Your task to perform on an android device: add a contact in the contacts app Image 0: 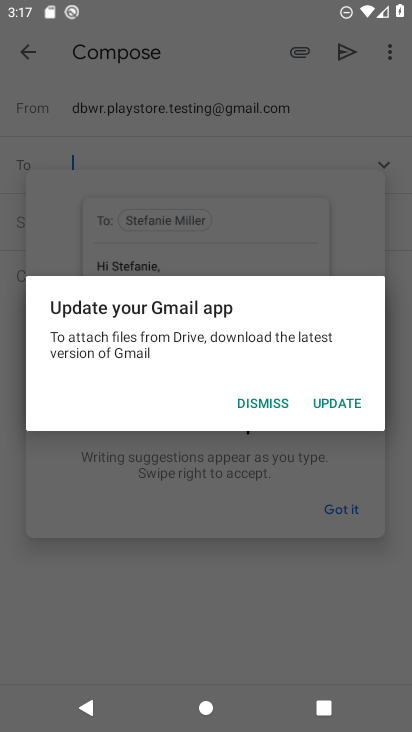
Step 0: press home button
Your task to perform on an android device: add a contact in the contacts app Image 1: 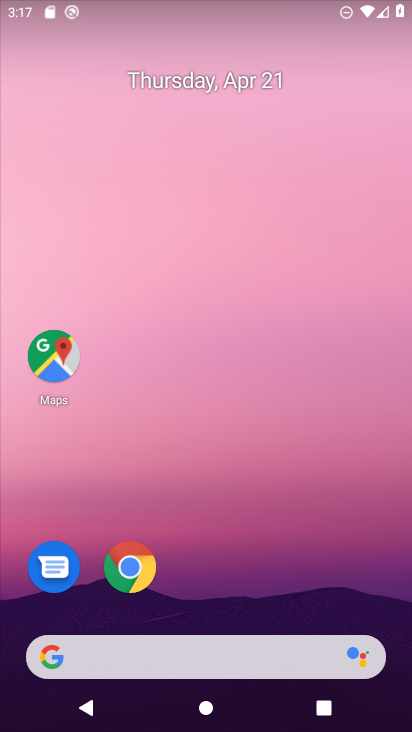
Step 1: drag from (178, 566) to (213, 109)
Your task to perform on an android device: add a contact in the contacts app Image 2: 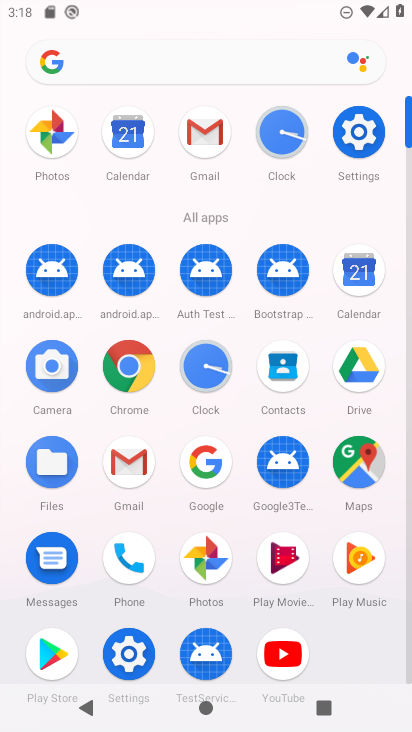
Step 2: click (213, 109)
Your task to perform on an android device: add a contact in the contacts app Image 3: 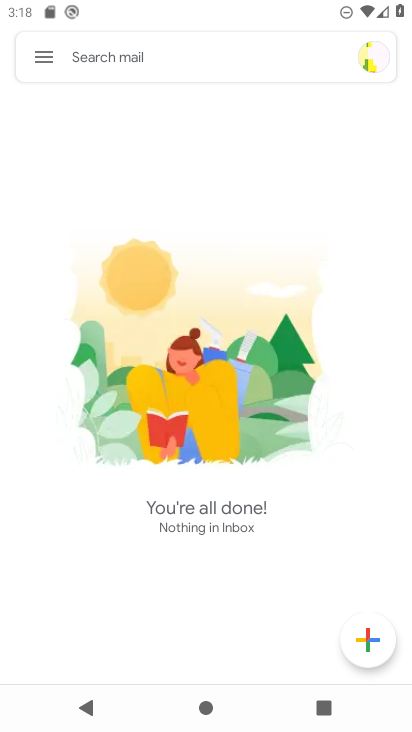
Step 3: press back button
Your task to perform on an android device: add a contact in the contacts app Image 4: 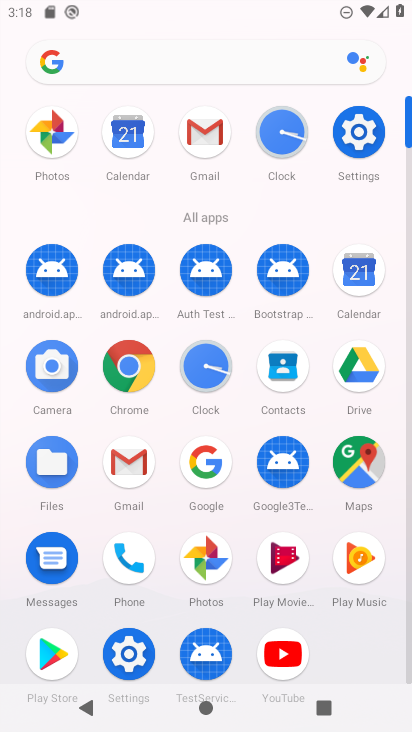
Step 4: click (290, 376)
Your task to perform on an android device: add a contact in the contacts app Image 5: 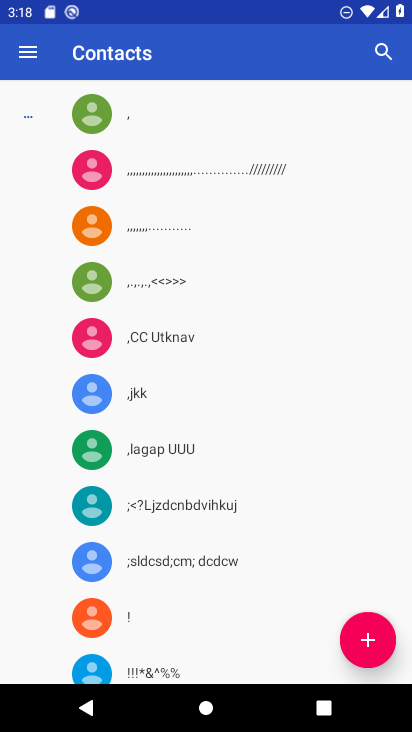
Step 5: click (368, 651)
Your task to perform on an android device: add a contact in the contacts app Image 6: 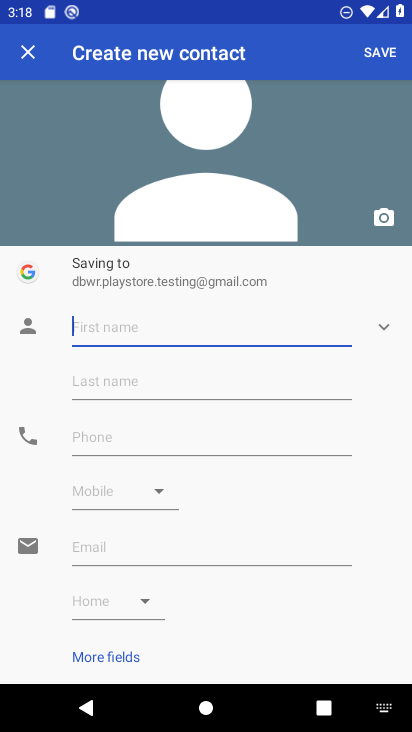
Step 6: type "cgffhfjfjfjy"
Your task to perform on an android device: add a contact in the contacts app Image 7: 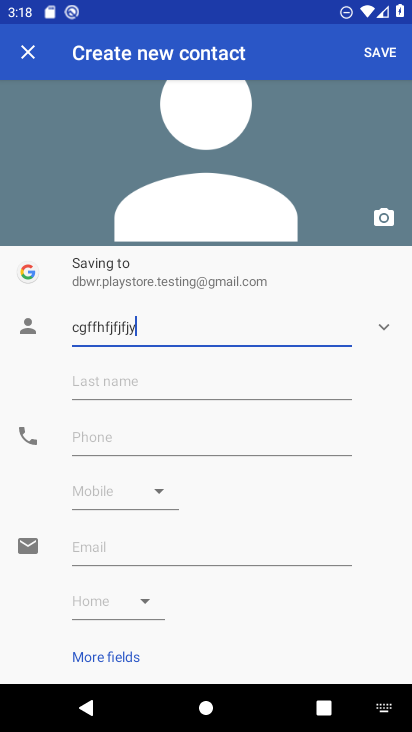
Step 7: click (150, 443)
Your task to perform on an android device: add a contact in the contacts app Image 8: 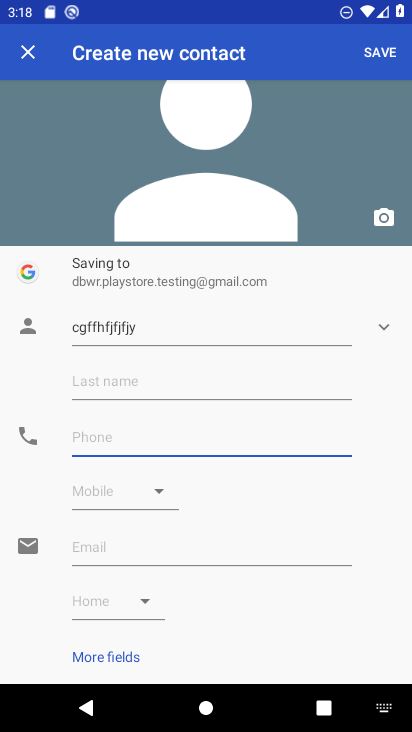
Step 8: click (150, 443)
Your task to perform on an android device: add a contact in the contacts app Image 9: 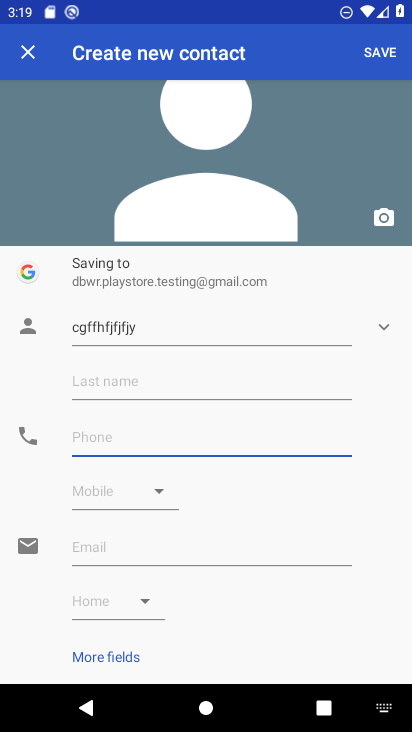
Step 9: type "887788999988"
Your task to perform on an android device: add a contact in the contacts app Image 10: 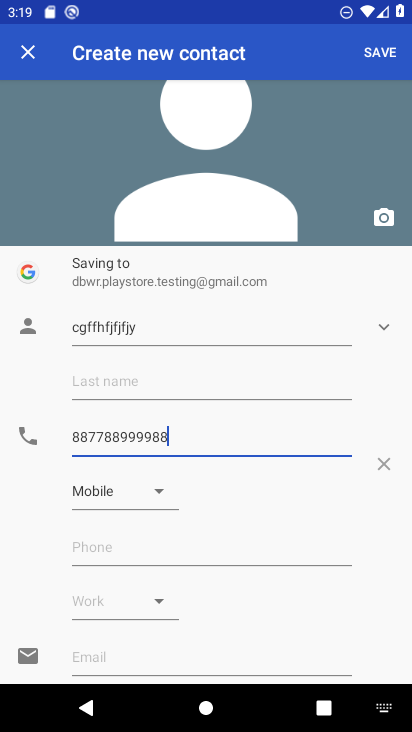
Step 10: click (373, 47)
Your task to perform on an android device: add a contact in the contacts app Image 11: 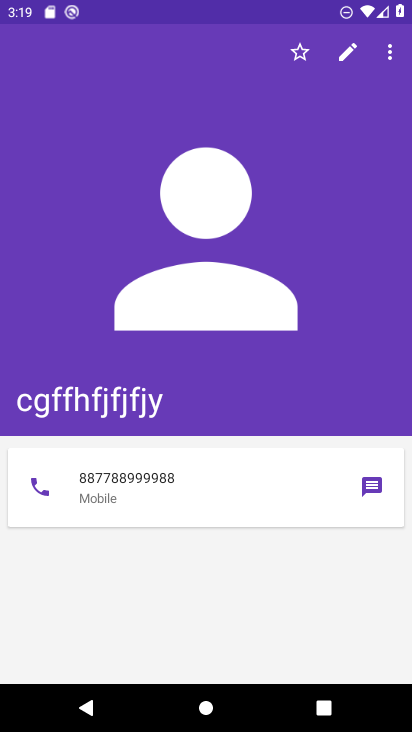
Step 11: task complete